Your task to perform on an android device: turn pop-ups off in chrome Image 0: 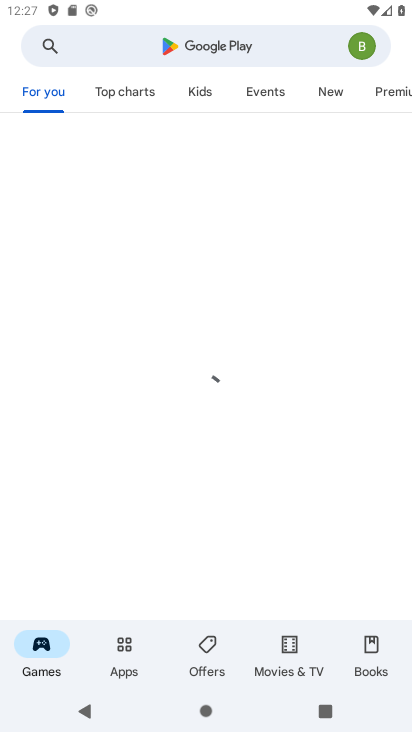
Step 0: press home button
Your task to perform on an android device: turn pop-ups off in chrome Image 1: 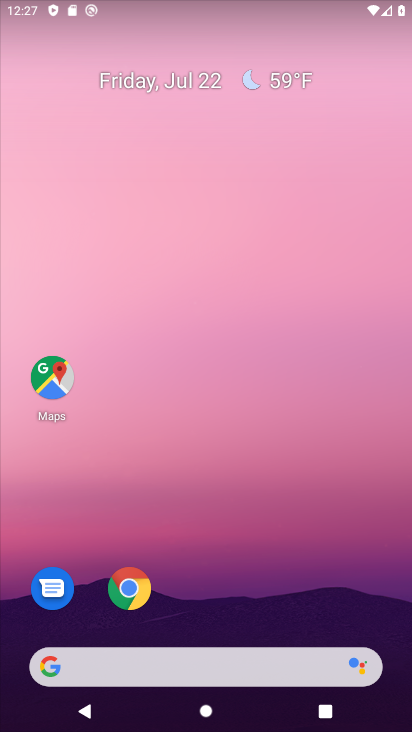
Step 1: click (122, 596)
Your task to perform on an android device: turn pop-ups off in chrome Image 2: 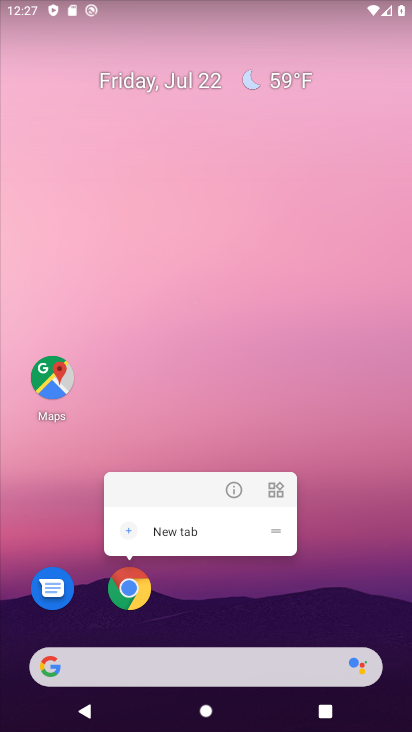
Step 2: click (122, 596)
Your task to perform on an android device: turn pop-ups off in chrome Image 3: 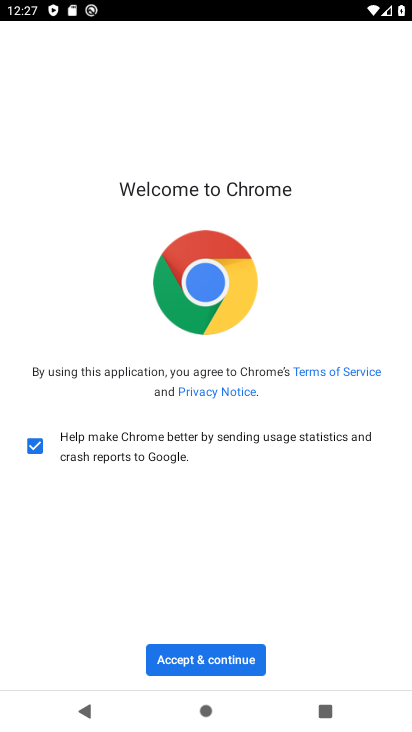
Step 3: click (214, 666)
Your task to perform on an android device: turn pop-ups off in chrome Image 4: 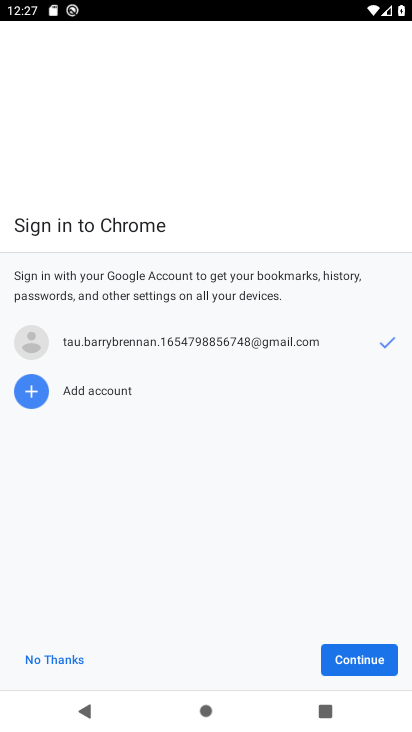
Step 4: click (369, 658)
Your task to perform on an android device: turn pop-ups off in chrome Image 5: 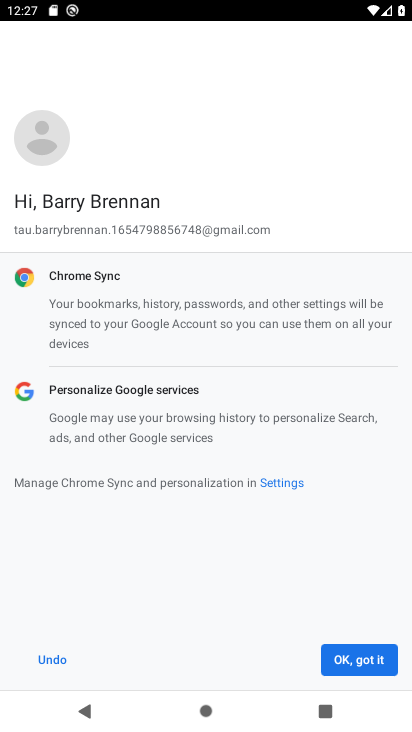
Step 5: click (367, 659)
Your task to perform on an android device: turn pop-ups off in chrome Image 6: 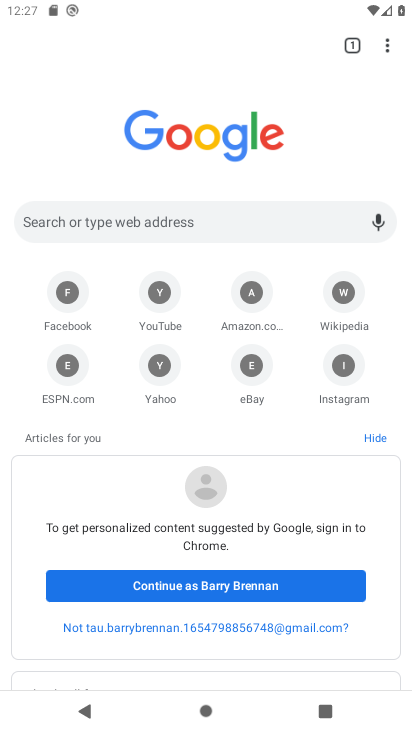
Step 6: click (383, 46)
Your task to perform on an android device: turn pop-ups off in chrome Image 7: 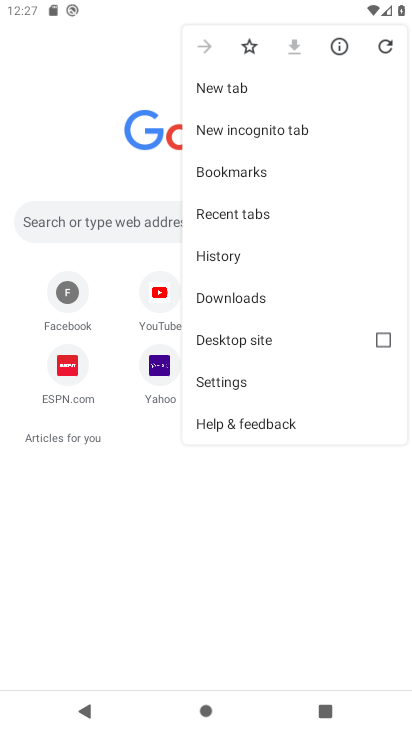
Step 7: click (245, 381)
Your task to perform on an android device: turn pop-ups off in chrome Image 8: 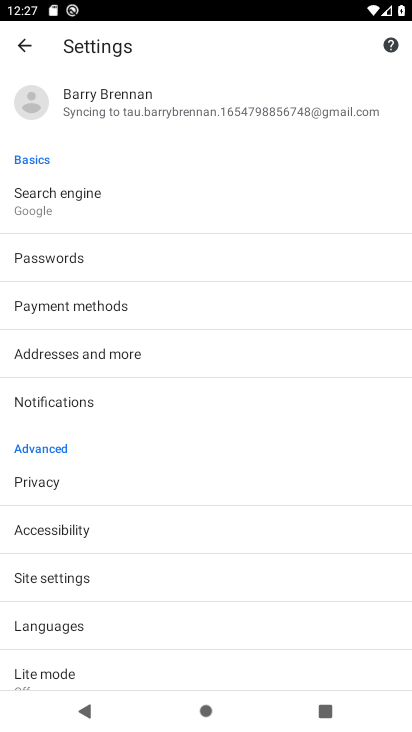
Step 8: click (44, 577)
Your task to perform on an android device: turn pop-ups off in chrome Image 9: 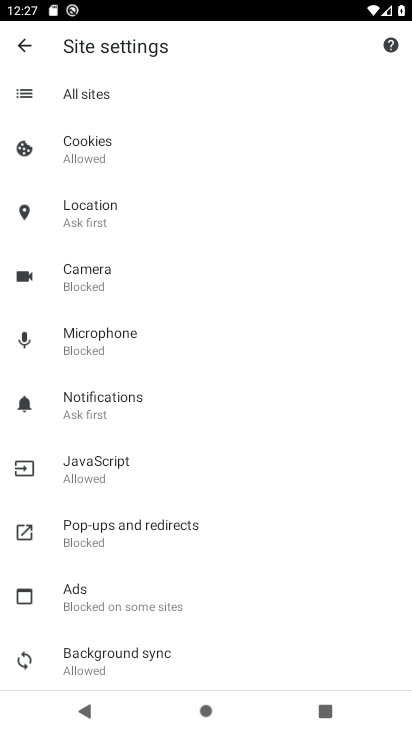
Step 9: click (119, 526)
Your task to perform on an android device: turn pop-ups off in chrome Image 10: 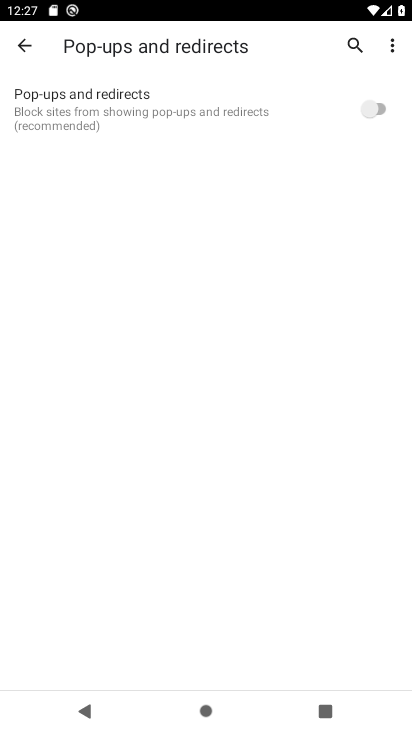
Step 10: task complete